Your task to perform on an android device: check android version Image 0: 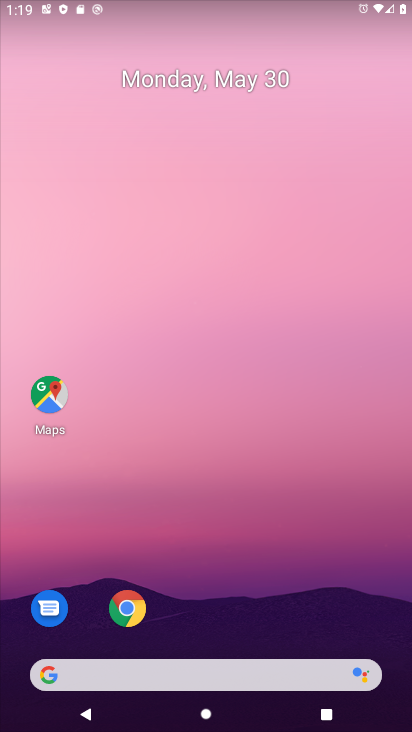
Step 0: drag from (180, 637) to (165, 298)
Your task to perform on an android device: check android version Image 1: 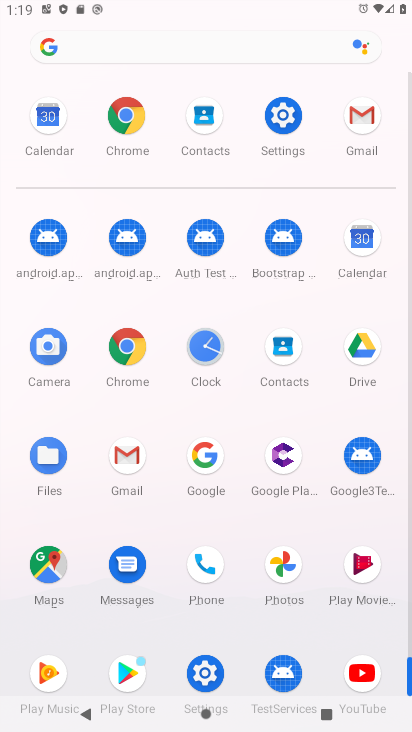
Step 1: click (287, 111)
Your task to perform on an android device: check android version Image 2: 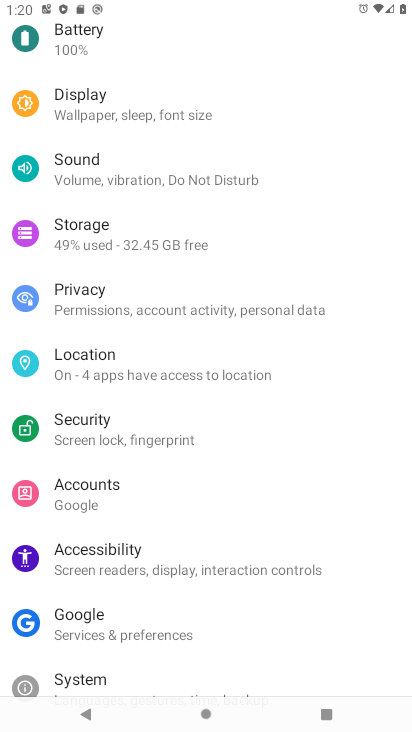
Step 2: drag from (113, 673) to (106, 223)
Your task to perform on an android device: check android version Image 3: 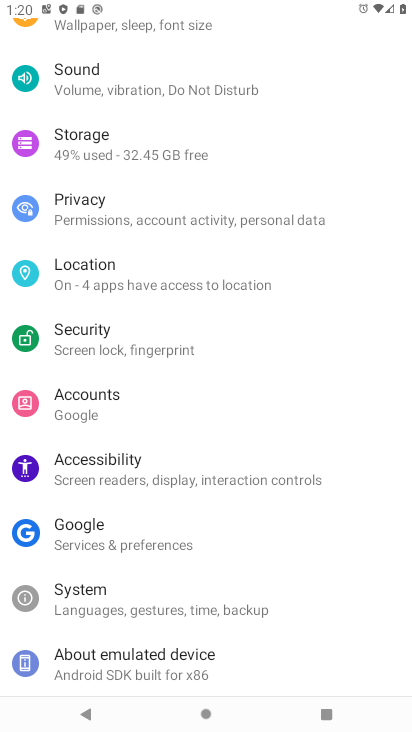
Step 3: click (107, 658)
Your task to perform on an android device: check android version Image 4: 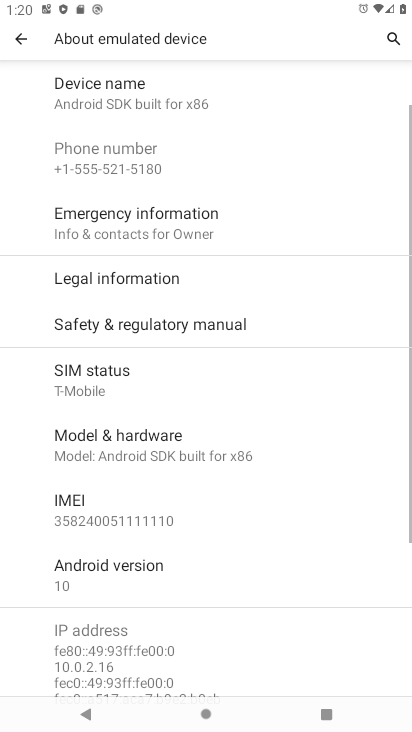
Step 4: click (90, 573)
Your task to perform on an android device: check android version Image 5: 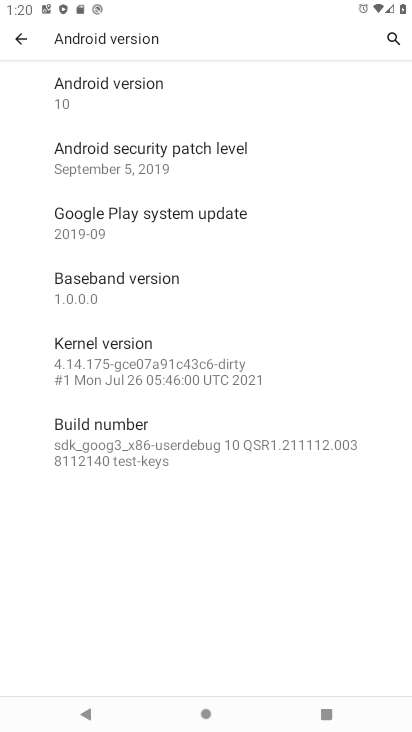
Step 5: task complete